Your task to perform on an android device: manage bookmarks in the chrome app Image 0: 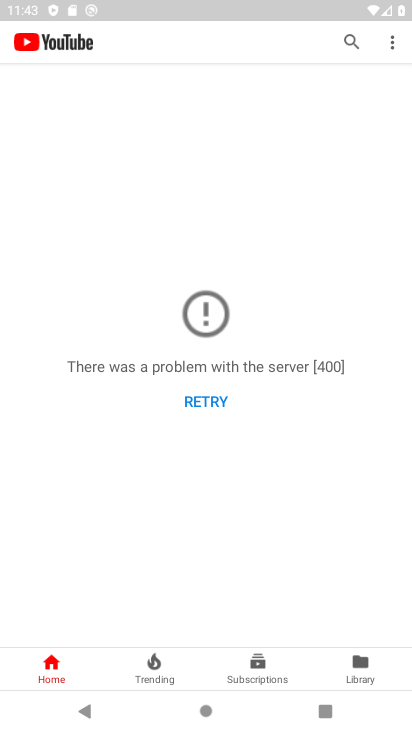
Step 0: press back button
Your task to perform on an android device: manage bookmarks in the chrome app Image 1: 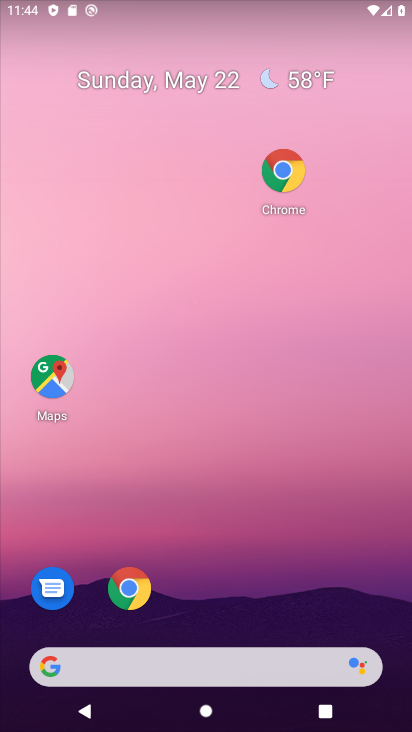
Step 1: drag from (272, 702) to (185, 0)
Your task to perform on an android device: manage bookmarks in the chrome app Image 2: 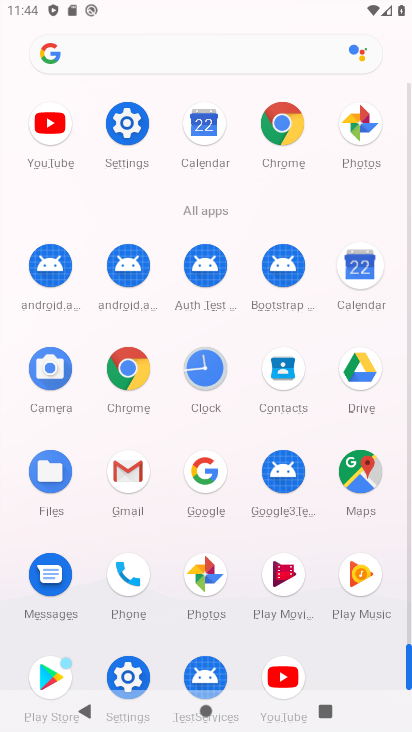
Step 2: click (285, 119)
Your task to perform on an android device: manage bookmarks in the chrome app Image 3: 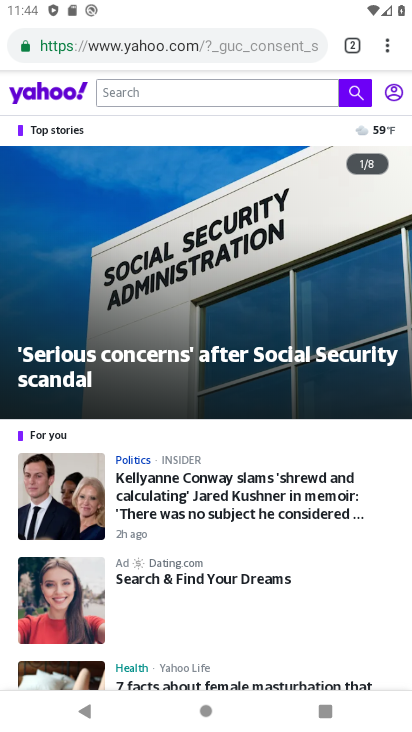
Step 3: drag from (385, 47) to (259, 171)
Your task to perform on an android device: manage bookmarks in the chrome app Image 4: 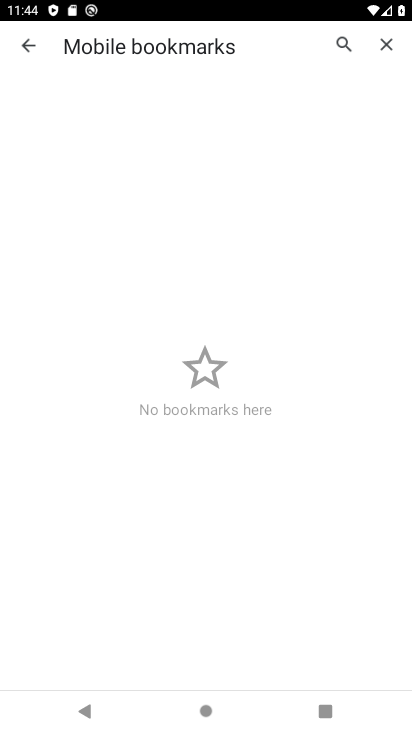
Step 4: click (26, 49)
Your task to perform on an android device: manage bookmarks in the chrome app Image 5: 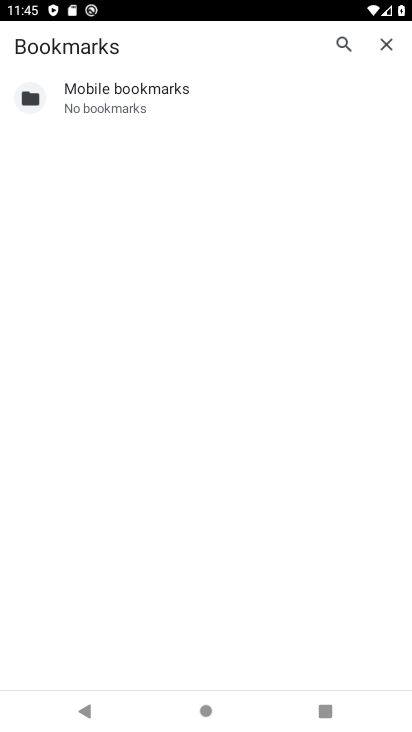
Step 5: task complete